Your task to perform on an android device: Find coffee shops on Maps Image 0: 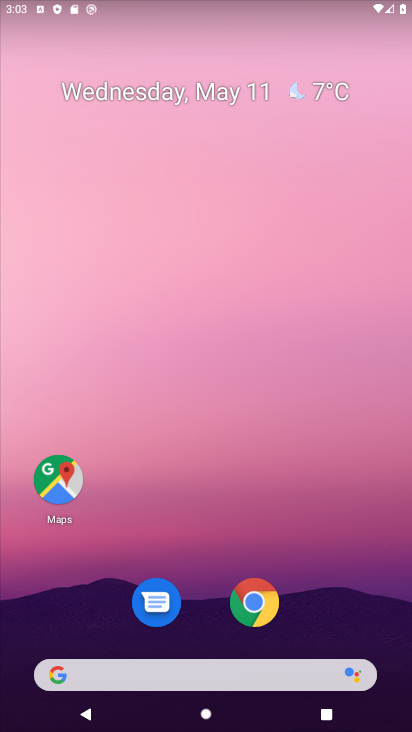
Step 0: click (32, 470)
Your task to perform on an android device: Find coffee shops on Maps Image 1: 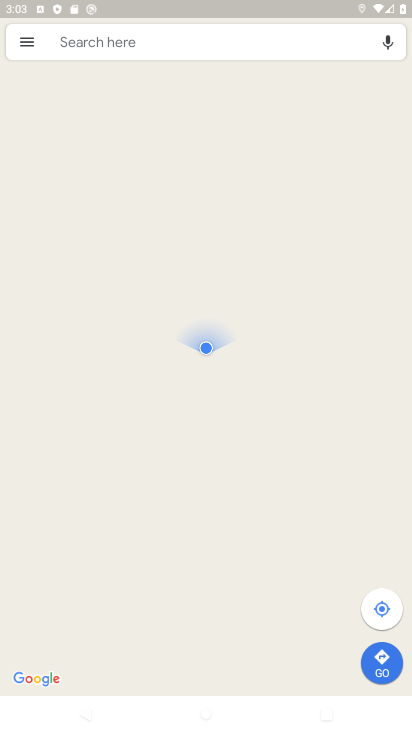
Step 1: click (182, 36)
Your task to perform on an android device: Find coffee shops on Maps Image 2: 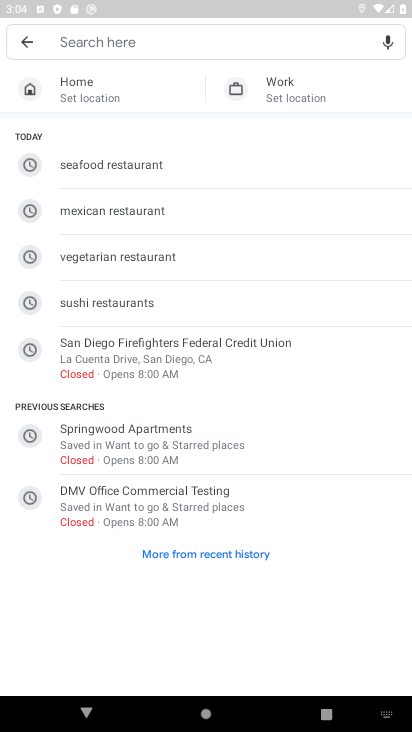
Step 2: type "coffee shop"
Your task to perform on an android device: Find coffee shops on Maps Image 3: 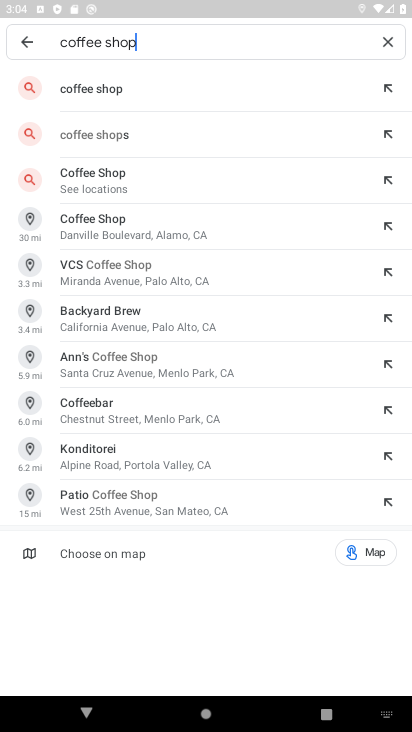
Step 3: click (139, 90)
Your task to perform on an android device: Find coffee shops on Maps Image 4: 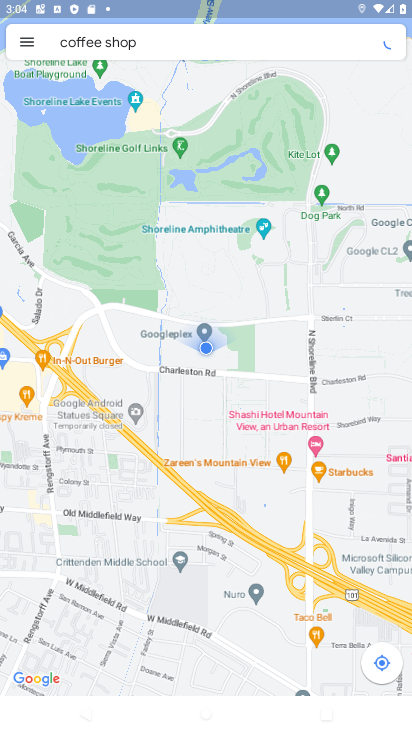
Step 4: drag from (110, 616) to (386, 291)
Your task to perform on an android device: Find coffee shops on Maps Image 5: 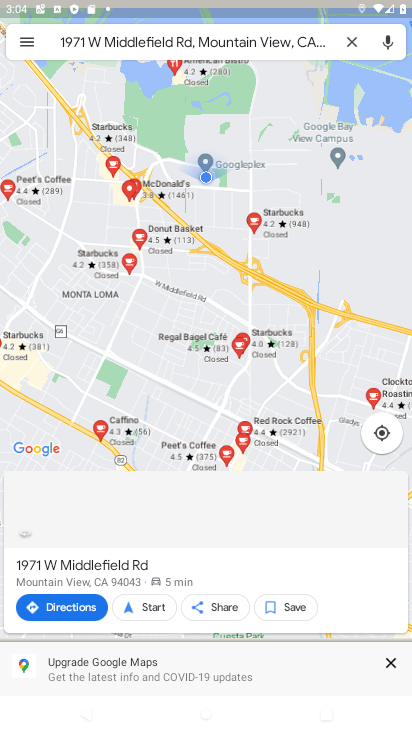
Step 5: click (313, 42)
Your task to perform on an android device: Find coffee shops on Maps Image 6: 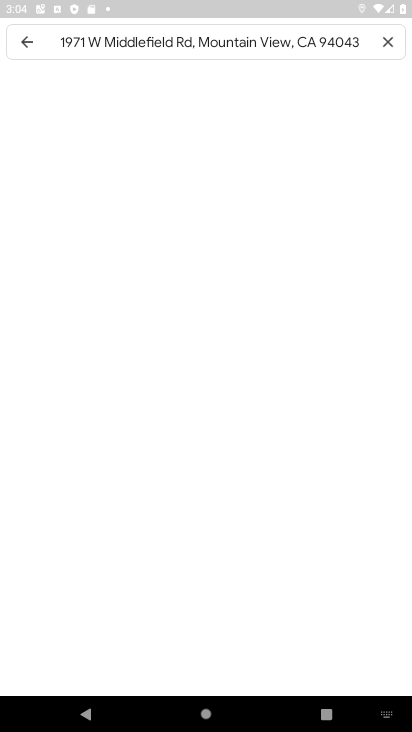
Step 6: click (383, 31)
Your task to perform on an android device: Find coffee shops on Maps Image 7: 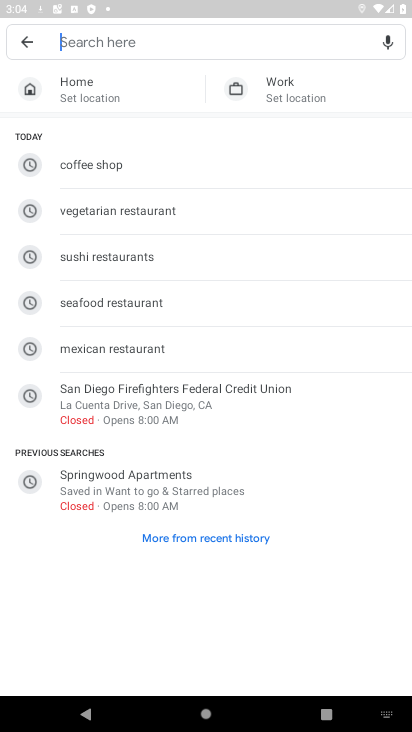
Step 7: click (240, 158)
Your task to perform on an android device: Find coffee shops on Maps Image 8: 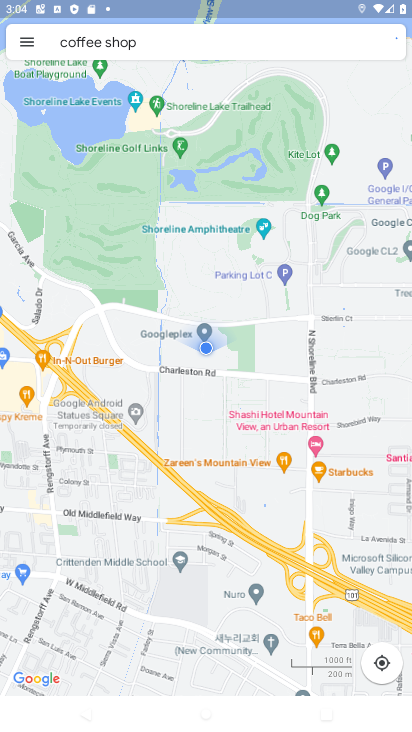
Step 8: task complete